Your task to perform on an android device: Open ESPN.com Image 0: 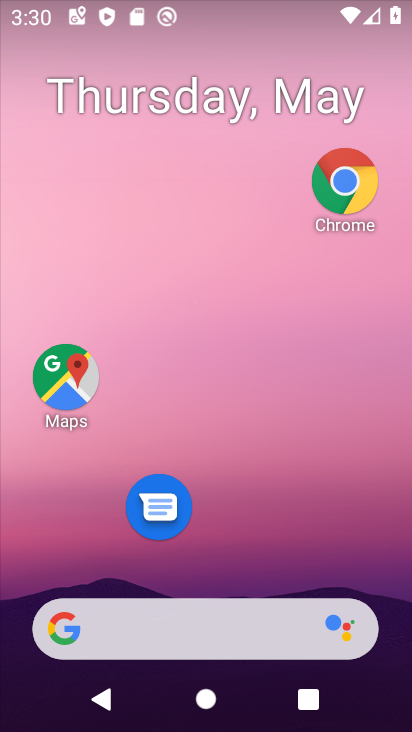
Step 0: click (351, 180)
Your task to perform on an android device: Open ESPN.com Image 1: 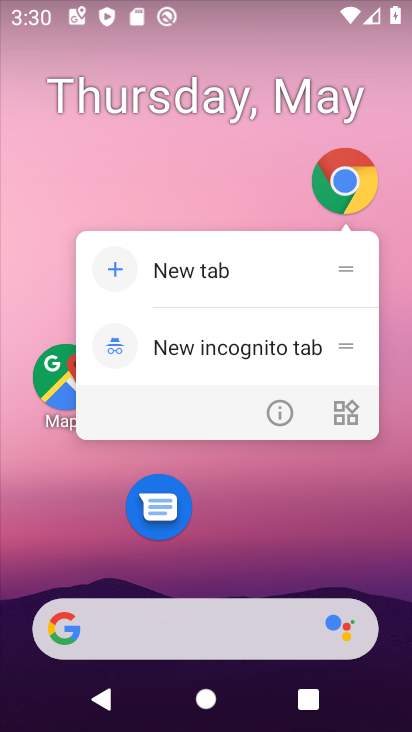
Step 1: click (242, 479)
Your task to perform on an android device: Open ESPN.com Image 2: 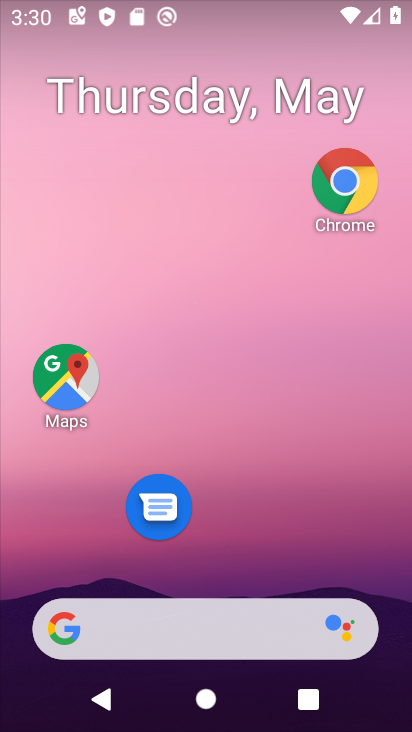
Step 2: drag from (229, 571) to (253, 99)
Your task to perform on an android device: Open ESPN.com Image 3: 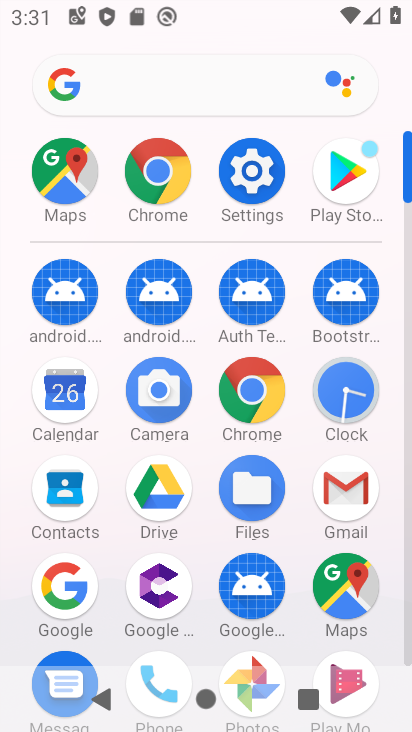
Step 3: click (253, 396)
Your task to perform on an android device: Open ESPN.com Image 4: 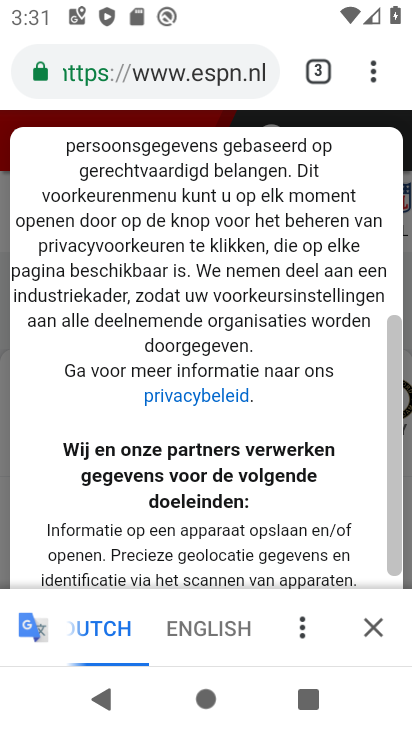
Step 4: click (183, 77)
Your task to perform on an android device: Open ESPN.com Image 5: 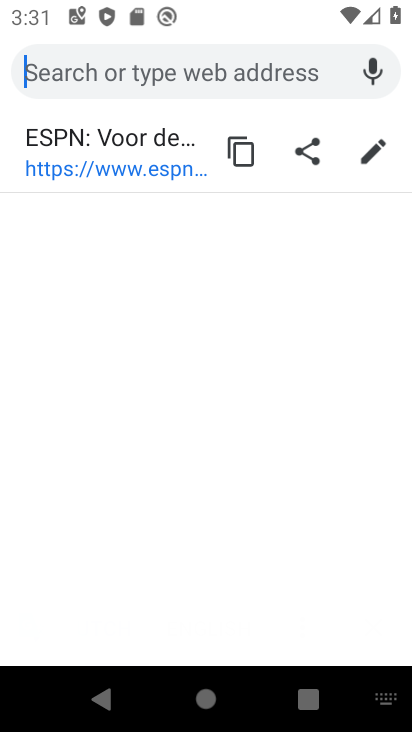
Step 5: type " ESPN.com"
Your task to perform on an android device: Open ESPN.com Image 6: 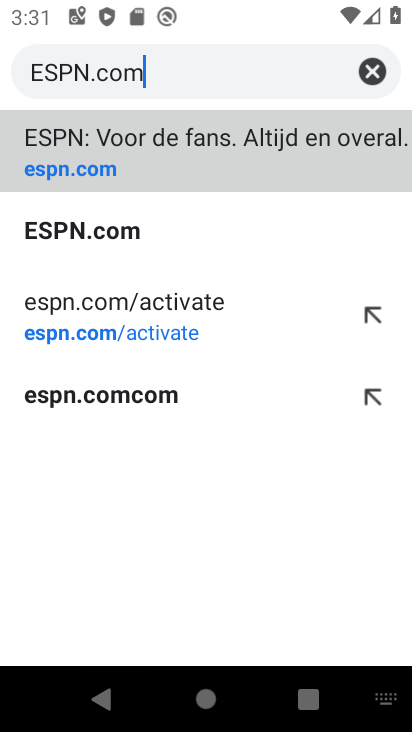
Step 6: click (80, 169)
Your task to perform on an android device: Open ESPN.com Image 7: 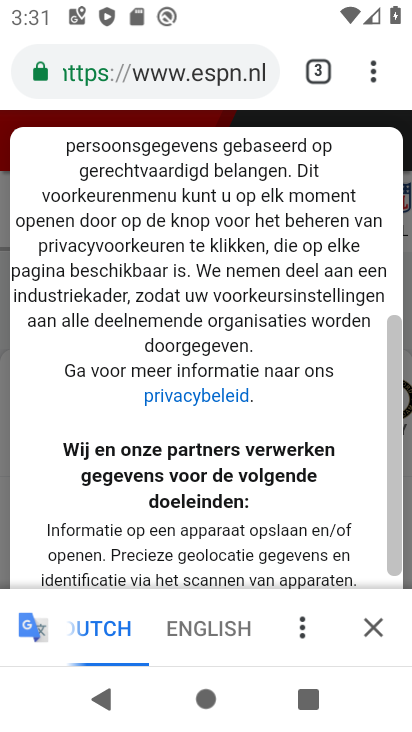
Step 7: task complete